Your task to perform on an android device: snooze an email in the gmail app Image 0: 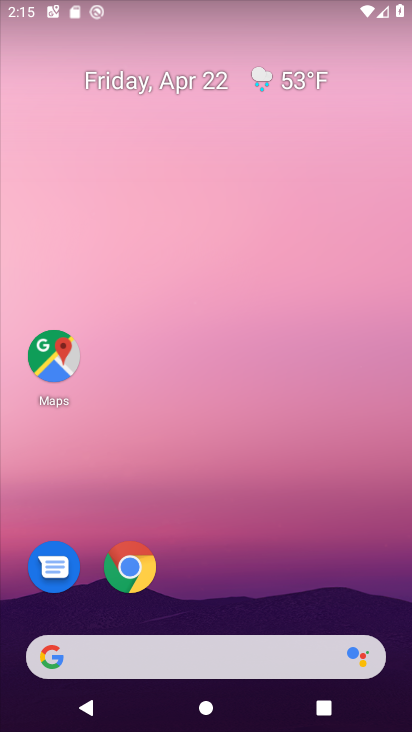
Step 0: drag from (261, 518) to (250, 105)
Your task to perform on an android device: snooze an email in the gmail app Image 1: 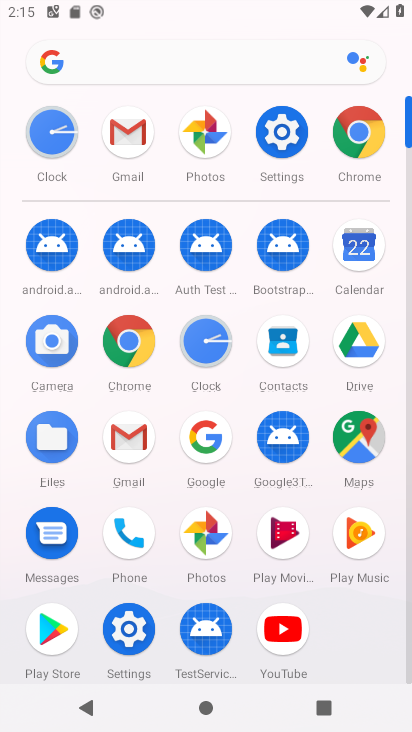
Step 1: click (126, 135)
Your task to perform on an android device: snooze an email in the gmail app Image 2: 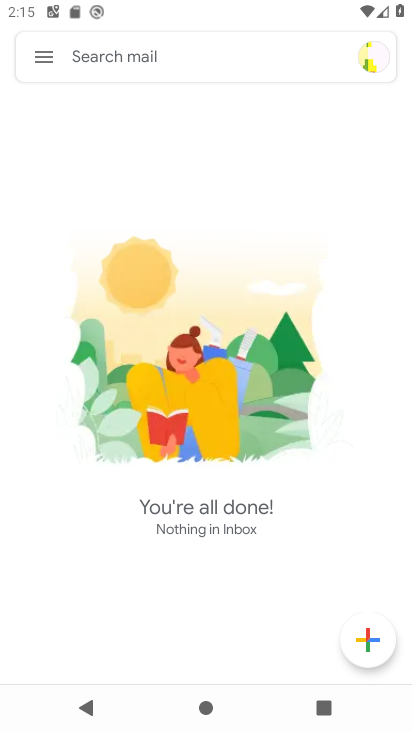
Step 2: click (41, 50)
Your task to perform on an android device: snooze an email in the gmail app Image 3: 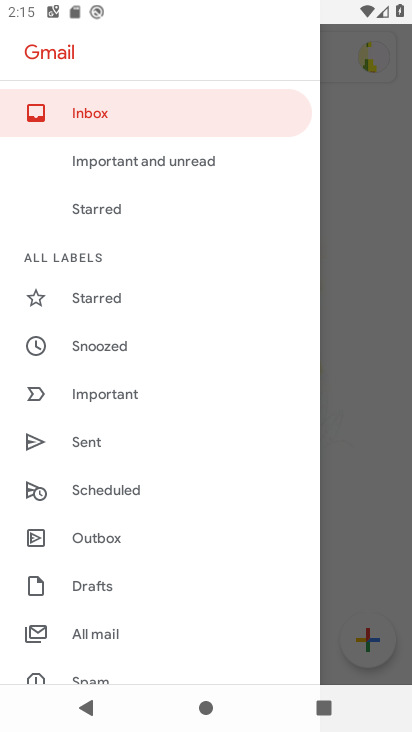
Step 3: click (125, 631)
Your task to perform on an android device: snooze an email in the gmail app Image 4: 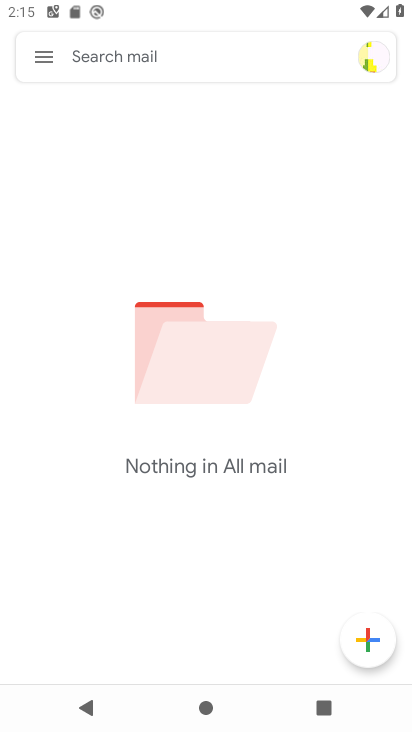
Step 4: task complete